Your task to perform on an android device: Open Google Chrome and open the bookmarks view Image 0: 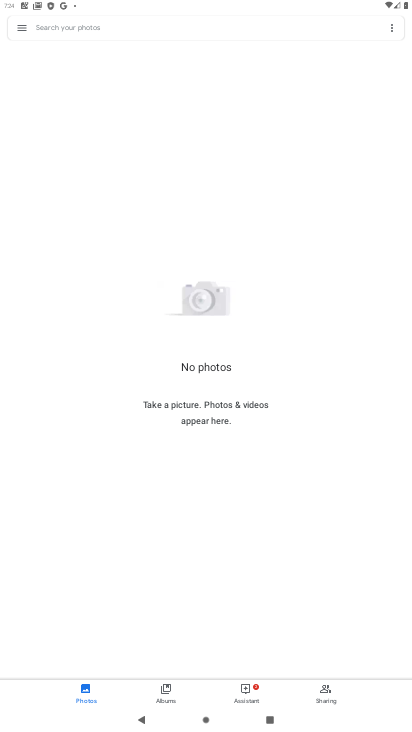
Step 0: press home button
Your task to perform on an android device: Open Google Chrome and open the bookmarks view Image 1: 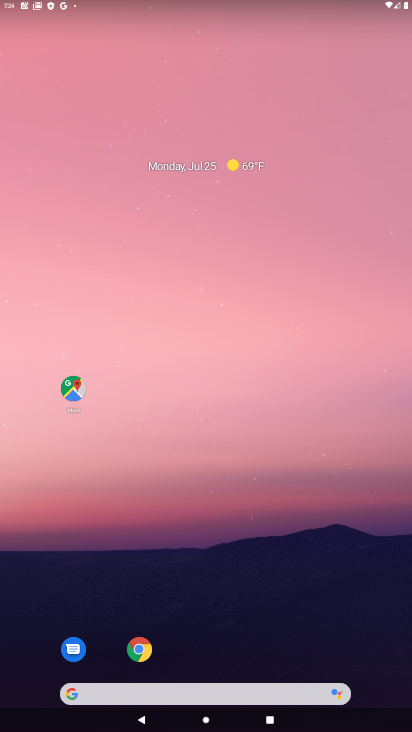
Step 1: drag from (279, 609) to (3, 182)
Your task to perform on an android device: Open Google Chrome and open the bookmarks view Image 2: 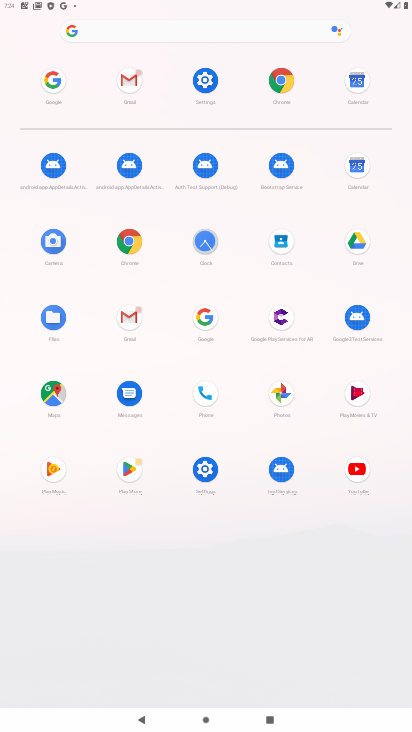
Step 2: click (280, 81)
Your task to perform on an android device: Open Google Chrome and open the bookmarks view Image 3: 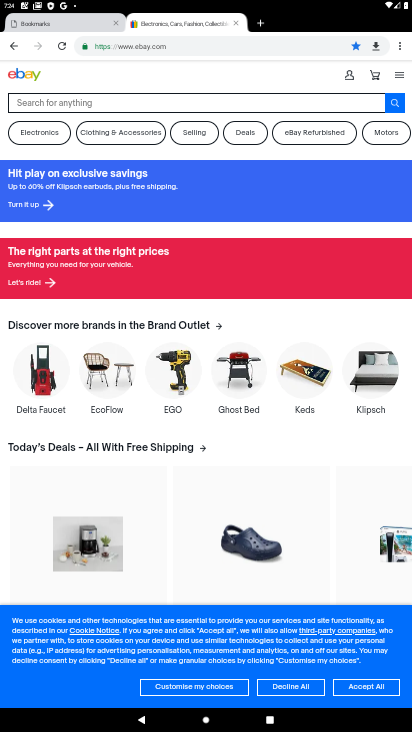
Step 3: task complete